Your task to perform on an android device: see sites visited before in the chrome app Image 0: 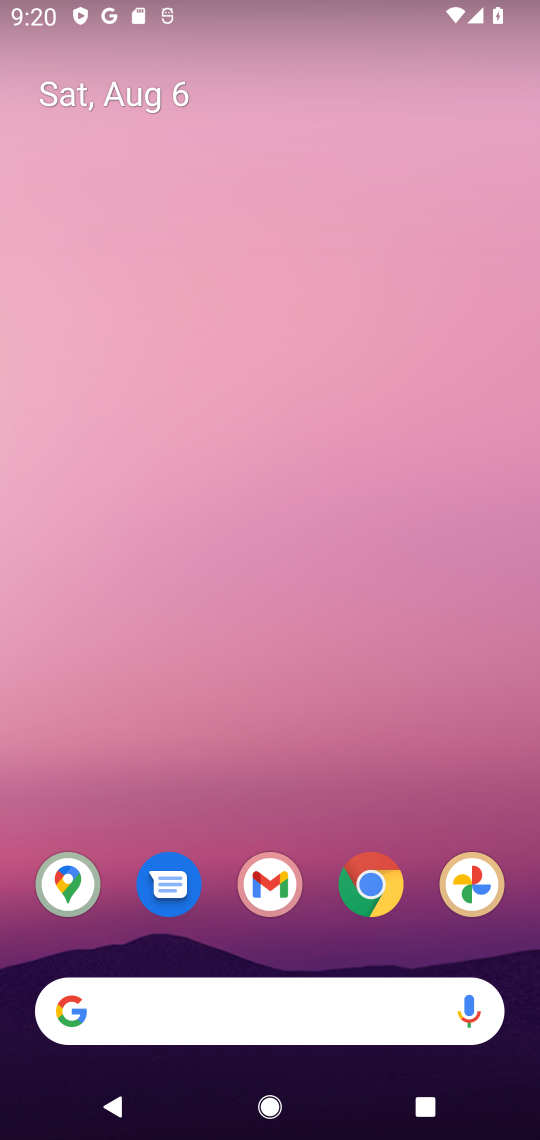
Step 0: click (373, 881)
Your task to perform on an android device: see sites visited before in the chrome app Image 1: 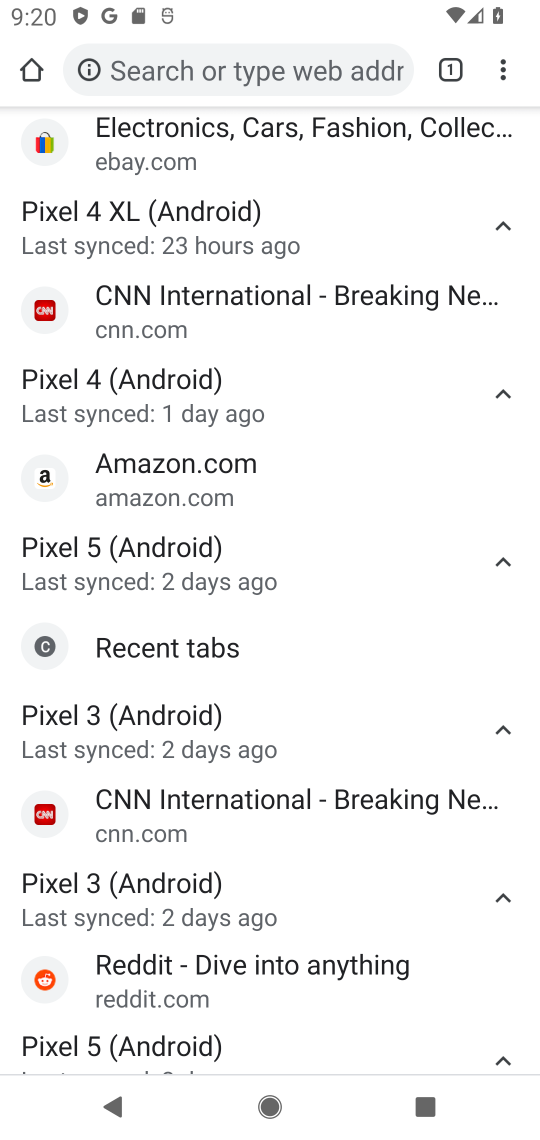
Step 1: click (497, 80)
Your task to perform on an android device: see sites visited before in the chrome app Image 2: 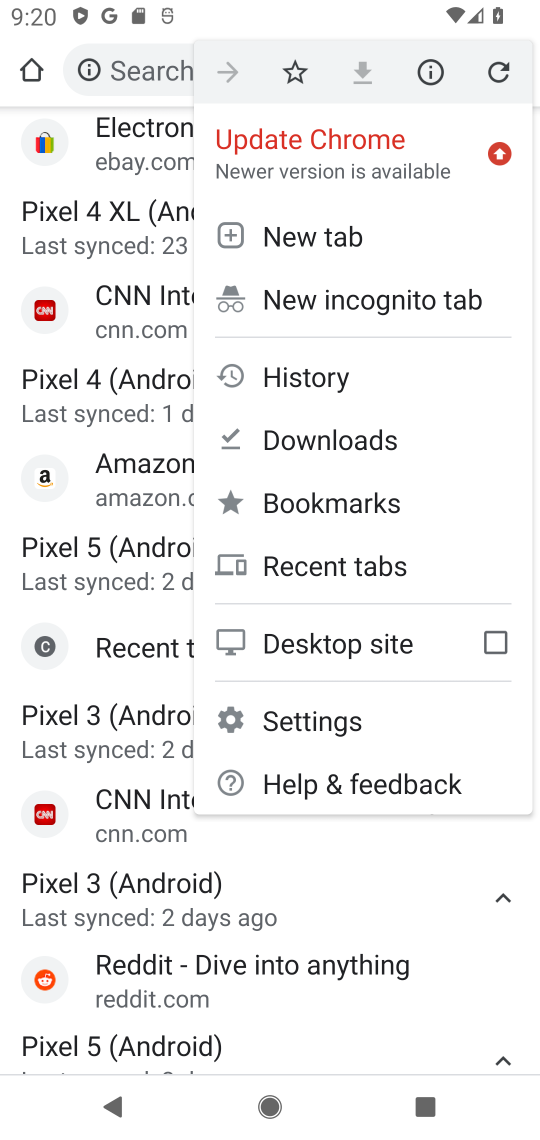
Step 2: click (307, 381)
Your task to perform on an android device: see sites visited before in the chrome app Image 3: 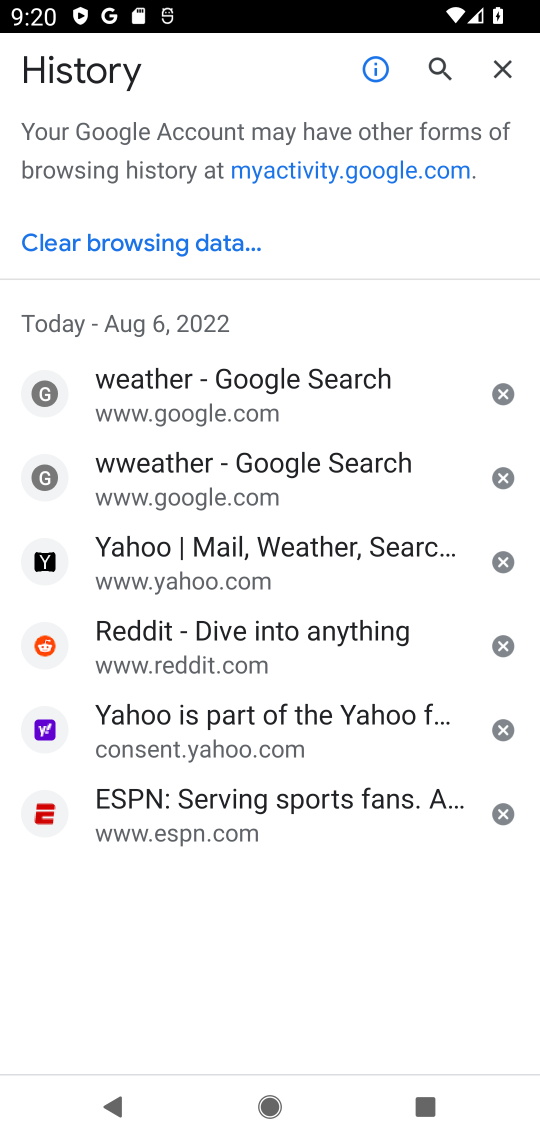
Step 3: task complete